Your task to perform on an android device: Open my contact list Image 0: 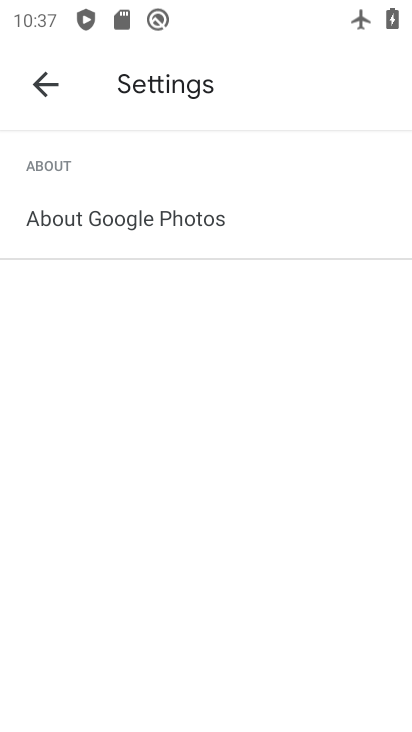
Step 0: press back button
Your task to perform on an android device: Open my contact list Image 1: 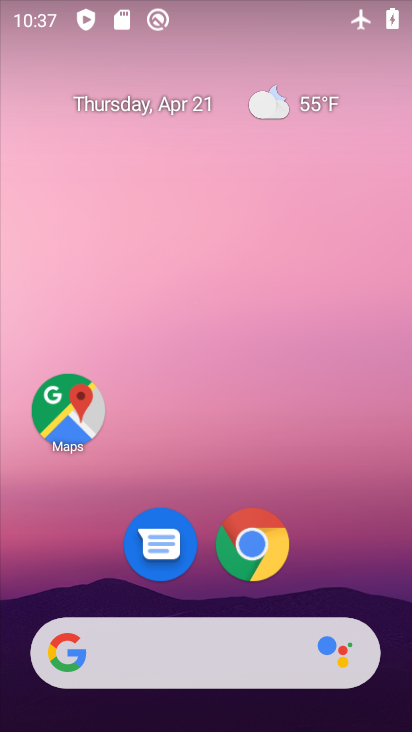
Step 1: drag from (377, 577) to (224, 38)
Your task to perform on an android device: Open my contact list Image 2: 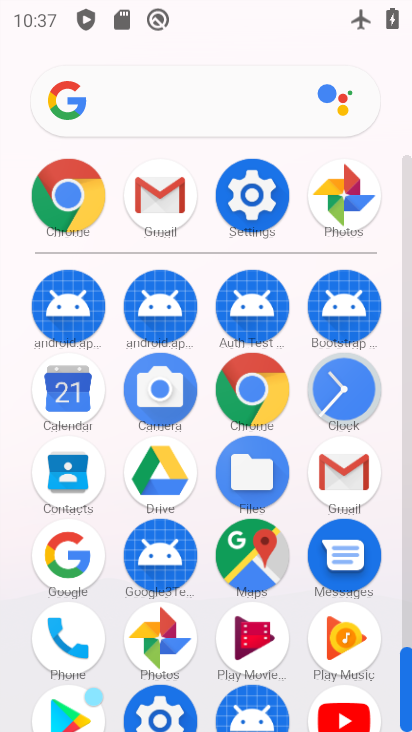
Step 2: click (72, 470)
Your task to perform on an android device: Open my contact list Image 3: 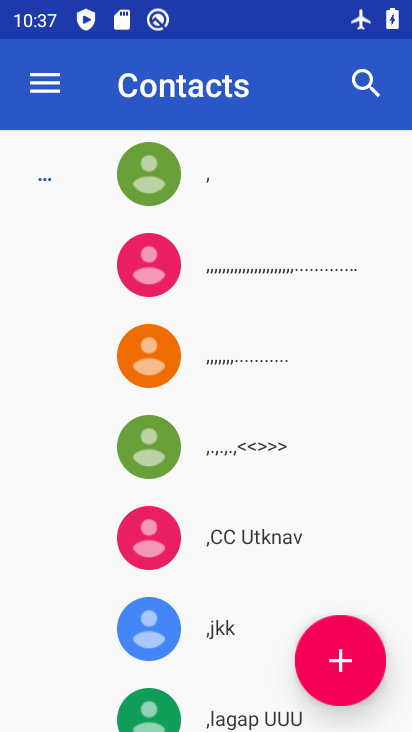
Step 3: click (47, 88)
Your task to perform on an android device: Open my contact list Image 4: 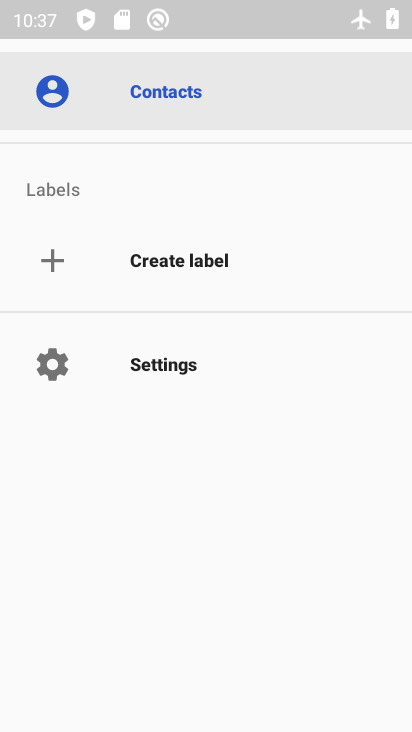
Step 4: press back button
Your task to perform on an android device: Open my contact list Image 5: 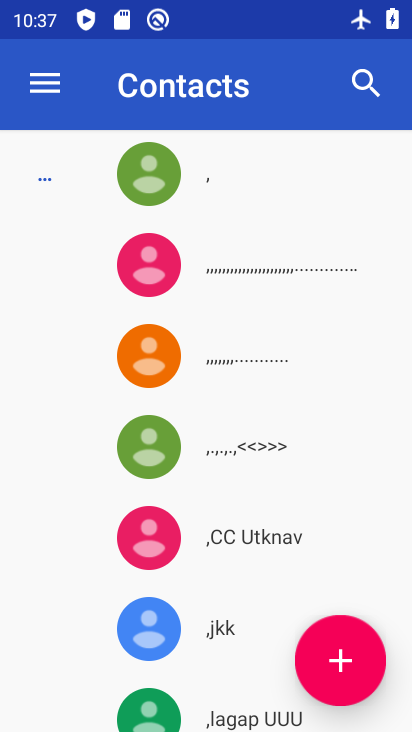
Step 5: drag from (232, 437) to (240, 180)
Your task to perform on an android device: Open my contact list Image 6: 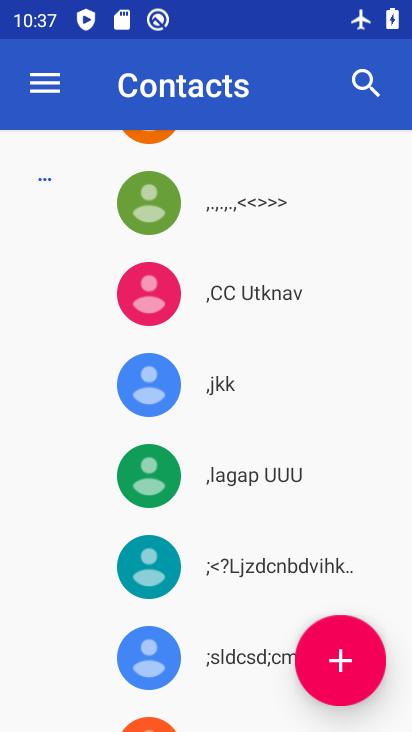
Step 6: drag from (183, 543) to (200, 254)
Your task to perform on an android device: Open my contact list Image 7: 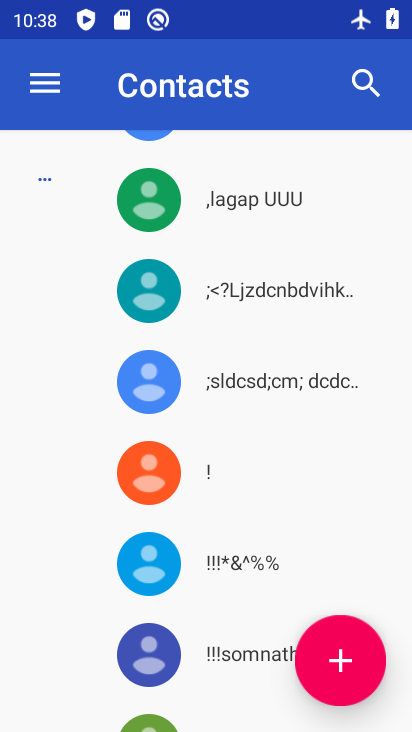
Step 7: drag from (225, 514) to (235, 301)
Your task to perform on an android device: Open my contact list Image 8: 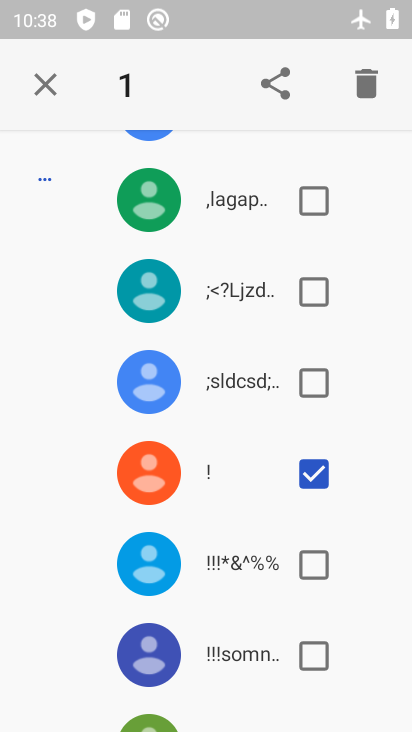
Step 8: click (299, 464)
Your task to perform on an android device: Open my contact list Image 9: 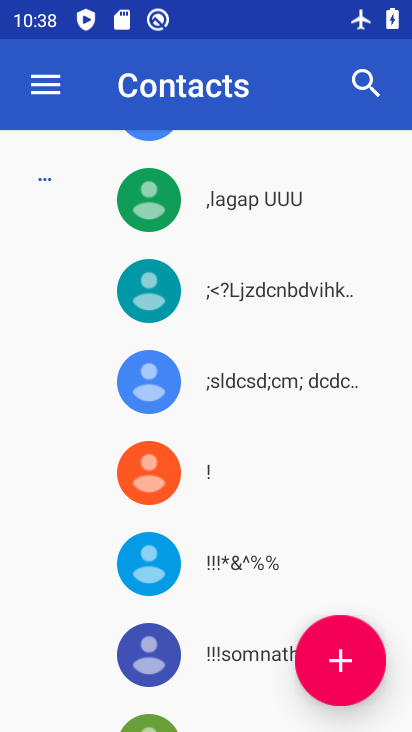
Step 9: task complete